Your task to perform on an android device: What is the recent news? Image 0: 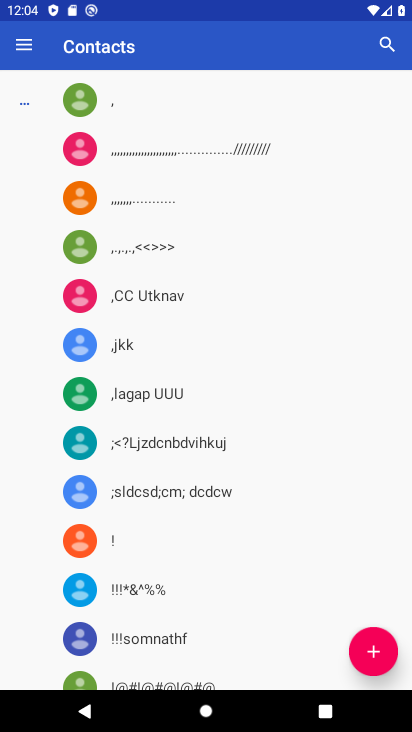
Step 0: press home button
Your task to perform on an android device: What is the recent news? Image 1: 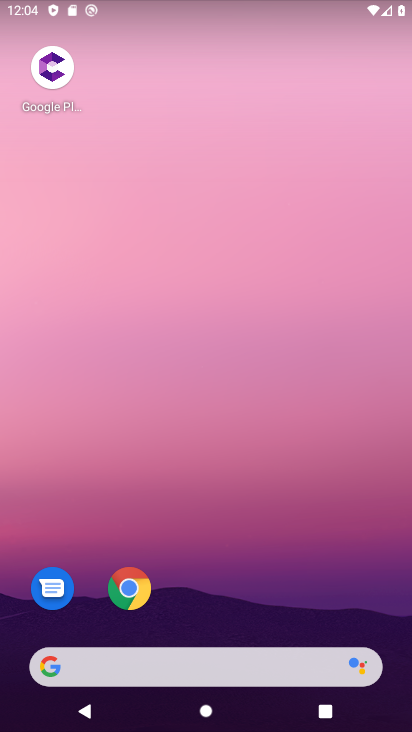
Step 1: drag from (298, 591) to (366, 35)
Your task to perform on an android device: What is the recent news? Image 2: 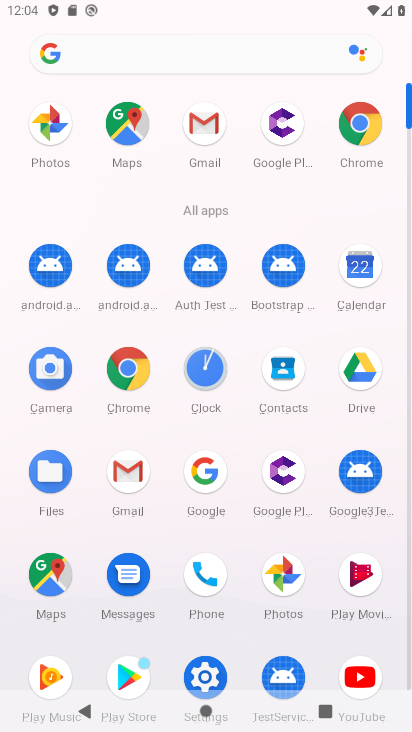
Step 2: click (125, 353)
Your task to perform on an android device: What is the recent news? Image 3: 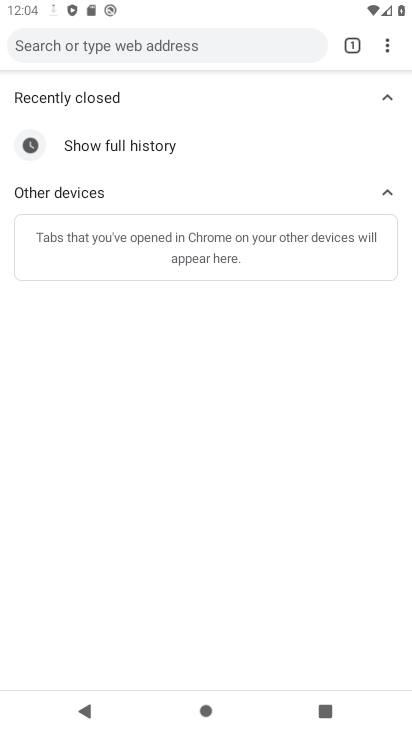
Step 3: click (195, 46)
Your task to perform on an android device: What is the recent news? Image 4: 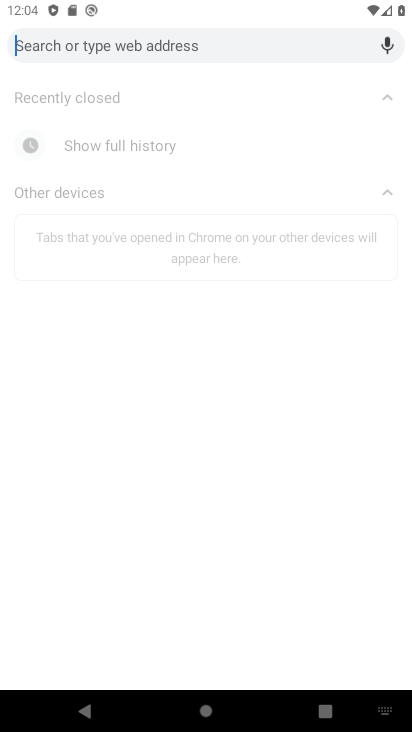
Step 4: type "recent news"
Your task to perform on an android device: What is the recent news? Image 5: 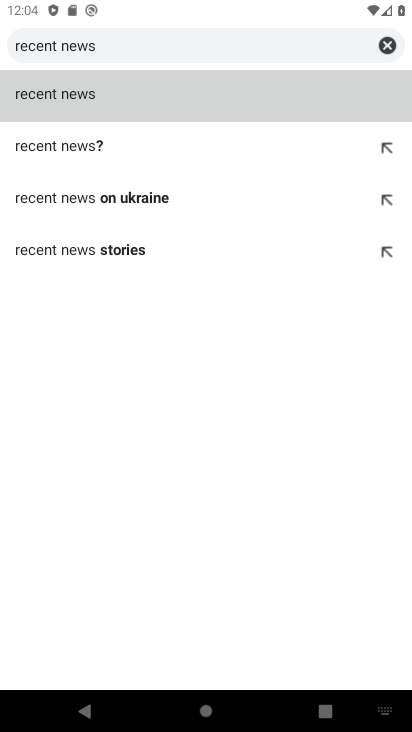
Step 5: click (49, 98)
Your task to perform on an android device: What is the recent news? Image 6: 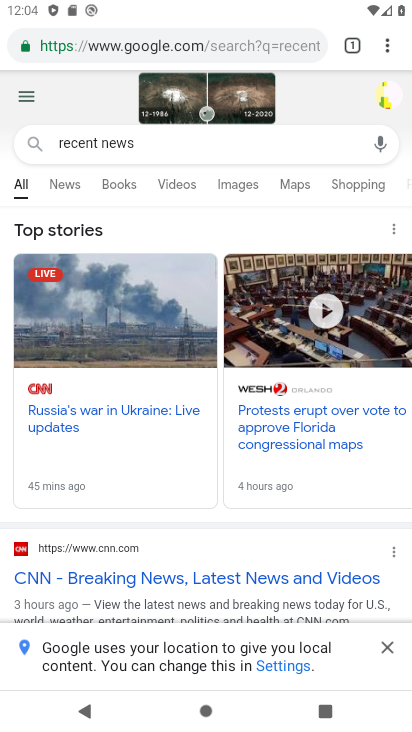
Step 6: click (61, 185)
Your task to perform on an android device: What is the recent news? Image 7: 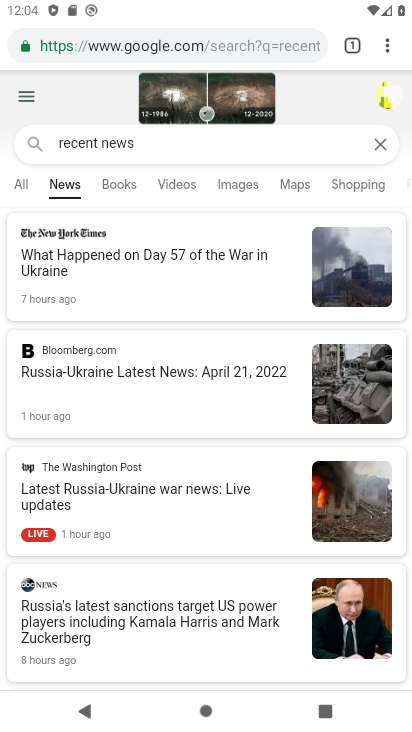
Step 7: task complete